Your task to perform on an android device: toggle data saver in the chrome app Image 0: 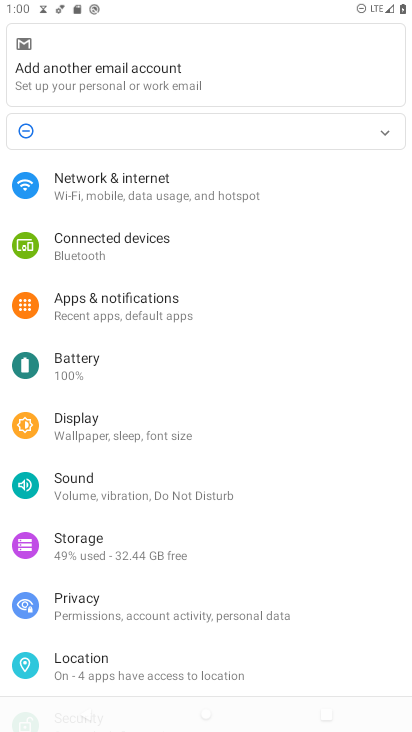
Step 0: press home button
Your task to perform on an android device: toggle data saver in the chrome app Image 1: 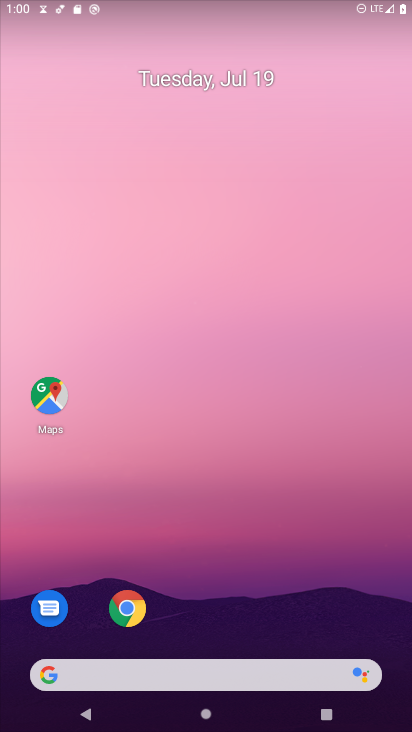
Step 1: drag from (223, 639) to (188, 79)
Your task to perform on an android device: toggle data saver in the chrome app Image 2: 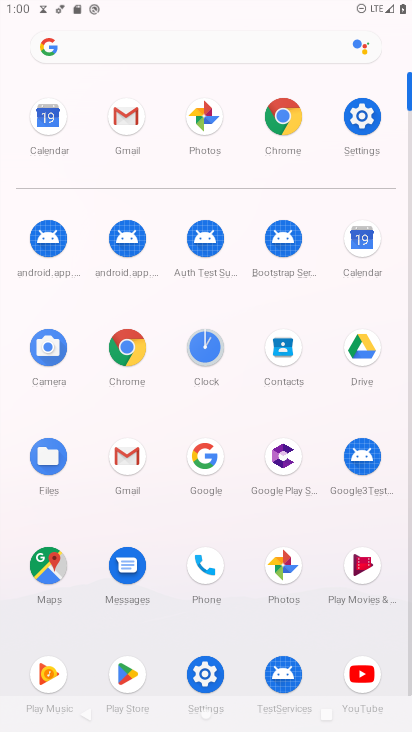
Step 2: click (122, 347)
Your task to perform on an android device: toggle data saver in the chrome app Image 3: 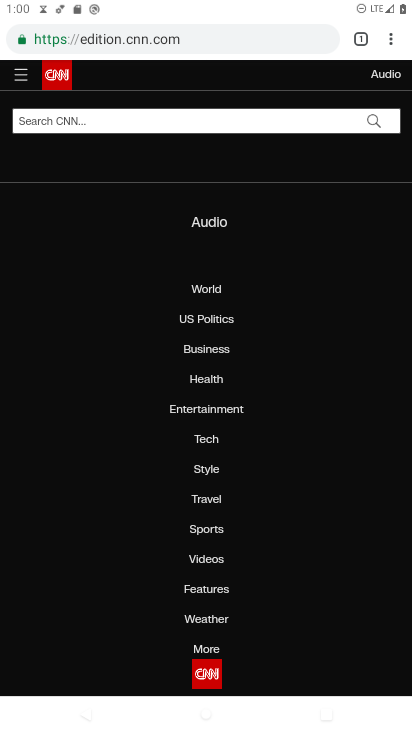
Step 3: drag from (384, 40) to (355, 268)
Your task to perform on an android device: toggle data saver in the chrome app Image 4: 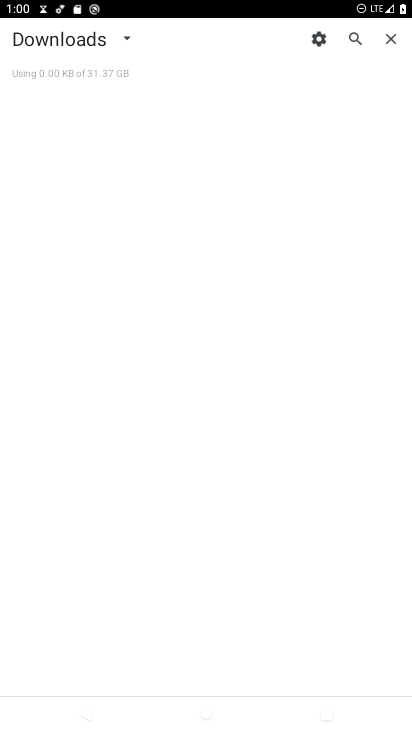
Step 4: click (393, 39)
Your task to perform on an android device: toggle data saver in the chrome app Image 5: 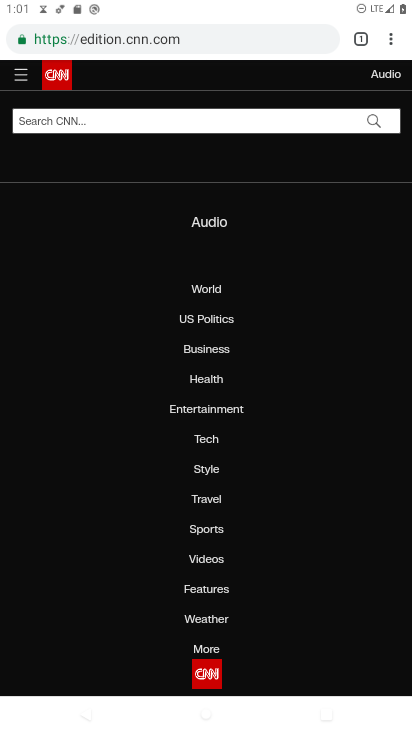
Step 5: click (392, 37)
Your task to perform on an android device: toggle data saver in the chrome app Image 6: 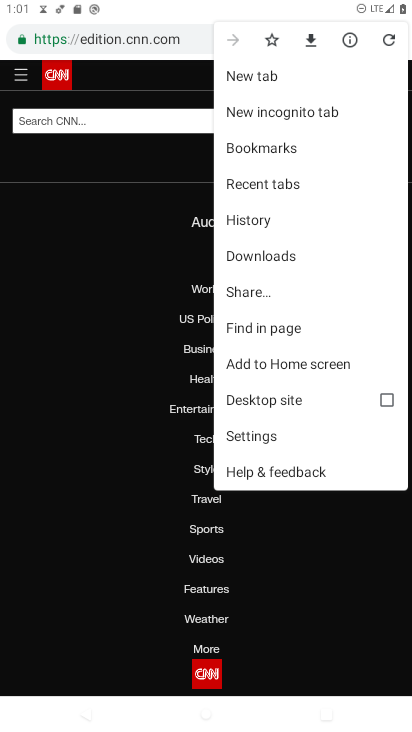
Step 6: click (276, 440)
Your task to perform on an android device: toggle data saver in the chrome app Image 7: 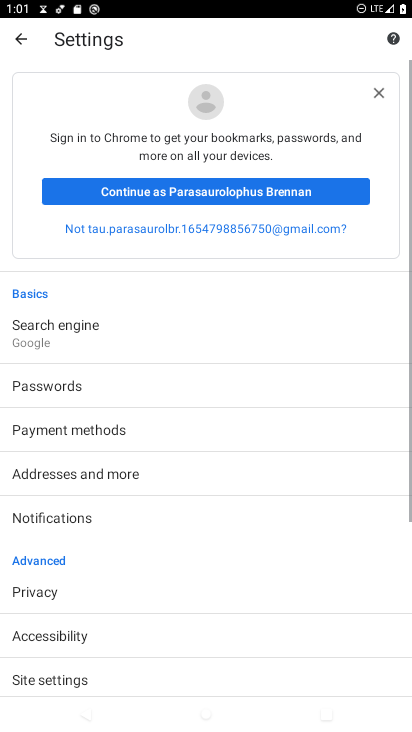
Step 7: drag from (219, 607) to (269, 242)
Your task to perform on an android device: toggle data saver in the chrome app Image 8: 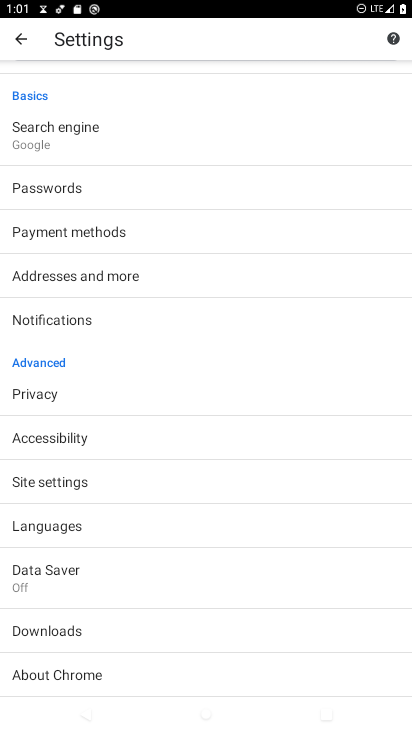
Step 8: click (206, 584)
Your task to perform on an android device: toggle data saver in the chrome app Image 9: 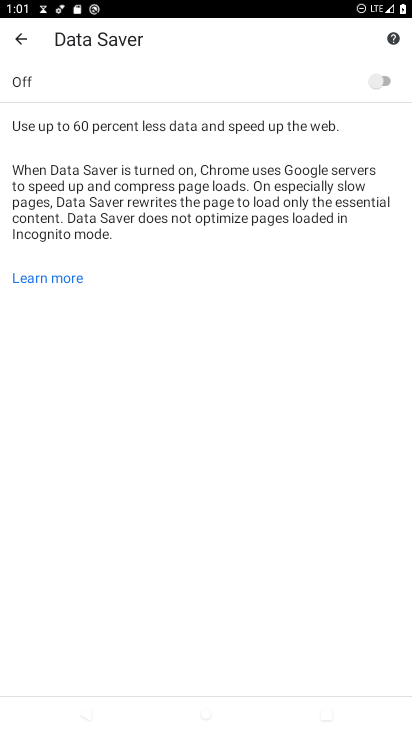
Step 9: click (387, 78)
Your task to perform on an android device: toggle data saver in the chrome app Image 10: 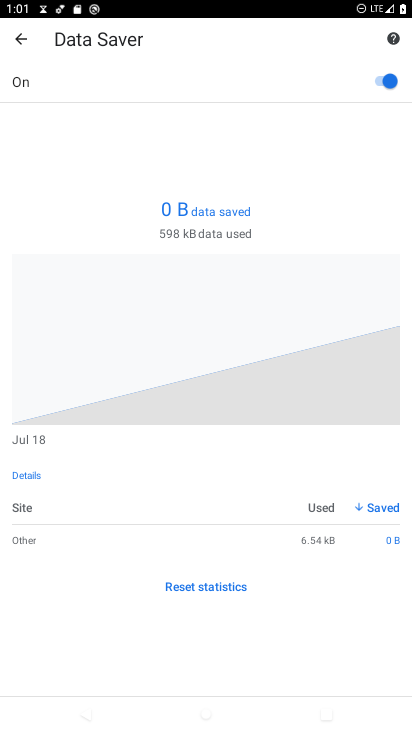
Step 10: task complete